Your task to perform on an android device: Open Youtube and go to "Your channel" Image 0: 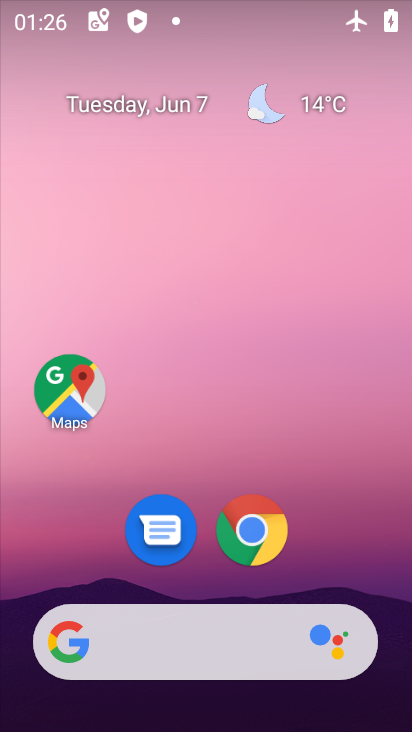
Step 0: drag from (306, 576) to (311, 244)
Your task to perform on an android device: Open Youtube and go to "Your channel" Image 1: 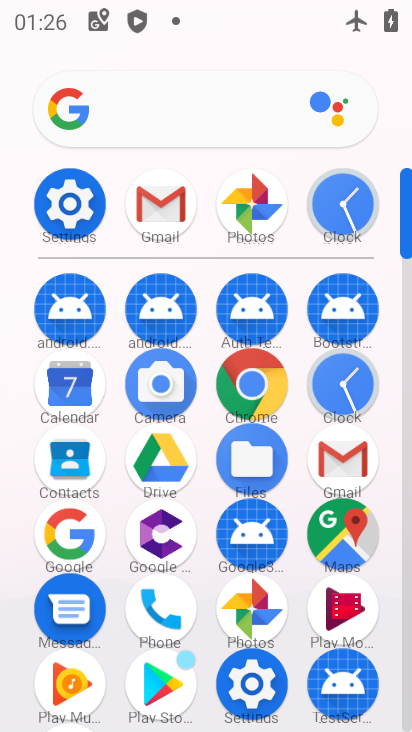
Step 1: drag from (268, 635) to (302, 346)
Your task to perform on an android device: Open Youtube and go to "Your channel" Image 2: 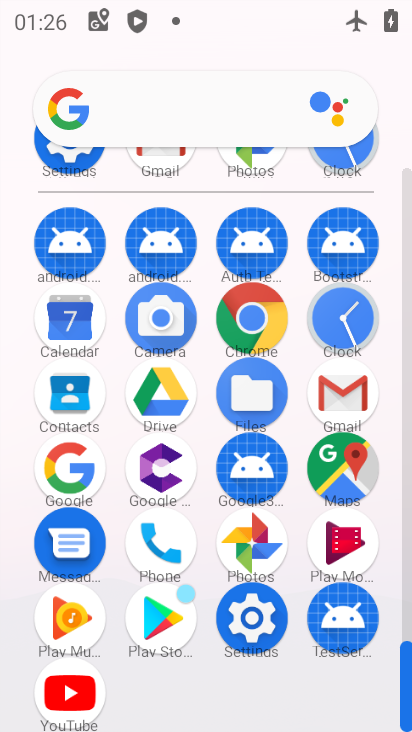
Step 2: click (75, 687)
Your task to perform on an android device: Open Youtube and go to "Your channel" Image 3: 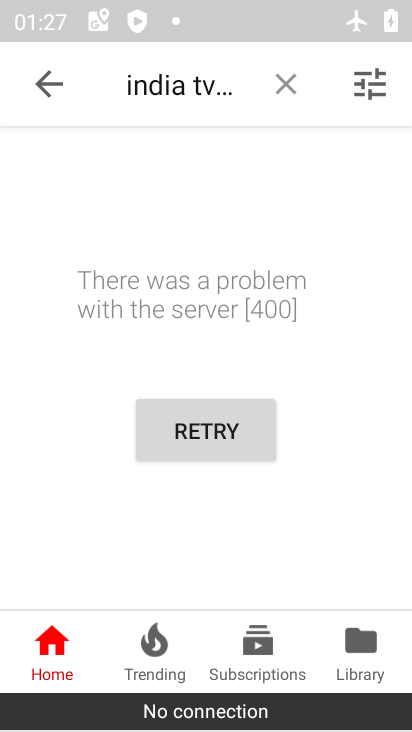
Step 3: task complete